Your task to perform on an android device: clear all cookies in the chrome app Image 0: 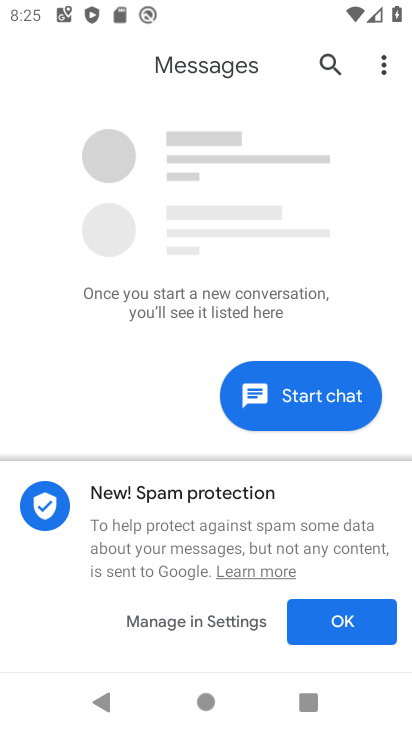
Step 0: click (346, 626)
Your task to perform on an android device: clear all cookies in the chrome app Image 1: 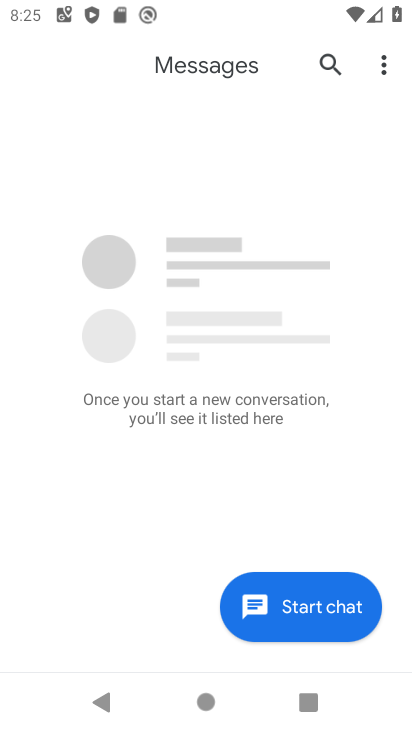
Step 1: click (343, 620)
Your task to perform on an android device: clear all cookies in the chrome app Image 2: 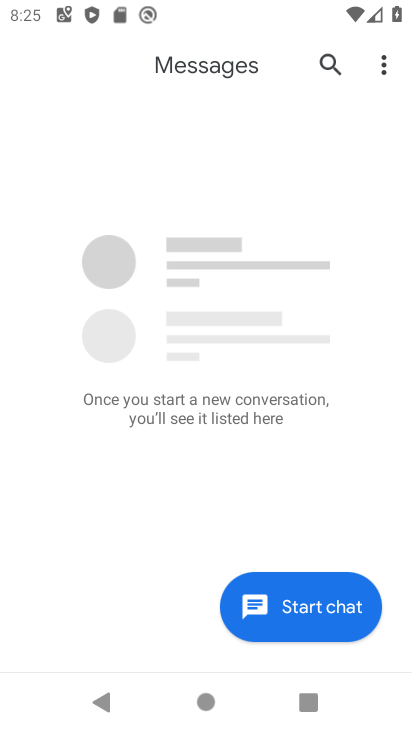
Step 2: click (345, 619)
Your task to perform on an android device: clear all cookies in the chrome app Image 3: 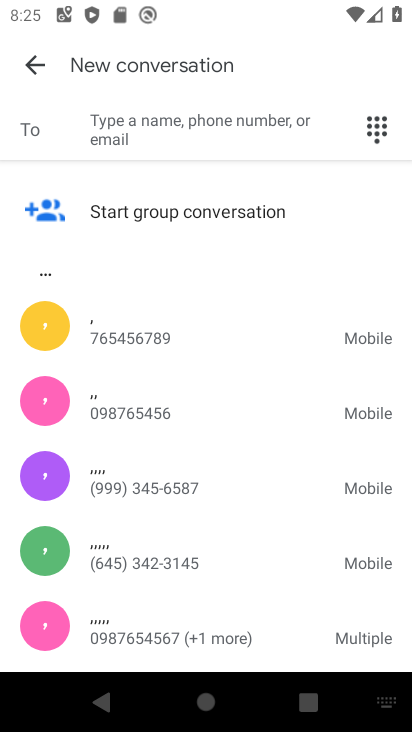
Step 3: click (354, 625)
Your task to perform on an android device: clear all cookies in the chrome app Image 4: 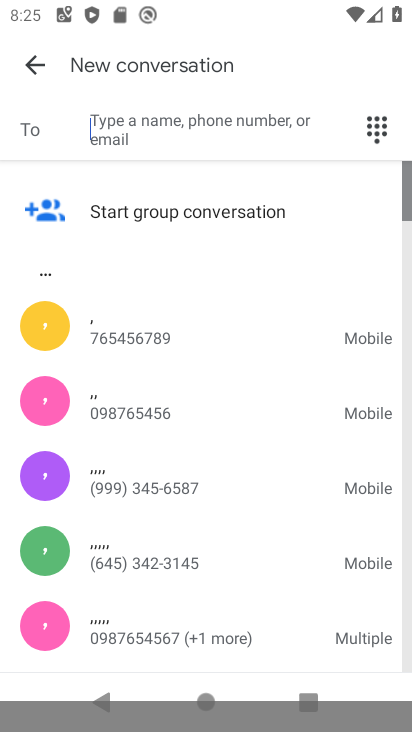
Step 4: press back button
Your task to perform on an android device: clear all cookies in the chrome app Image 5: 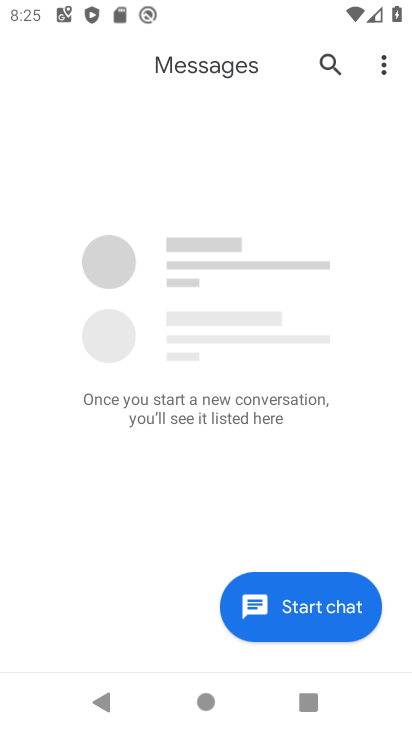
Step 5: press home button
Your task to perform on an android device: clear all cookies in the chrome app Image 6: 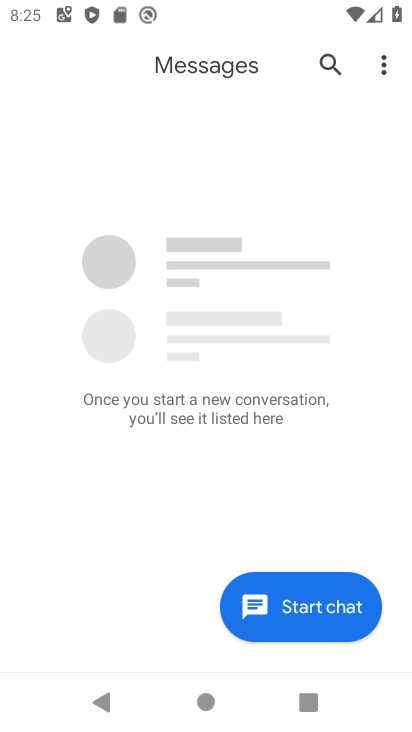
Step 6: press home button
Your task to perform on an android device: clear all cookies in the chrome app Image 7: 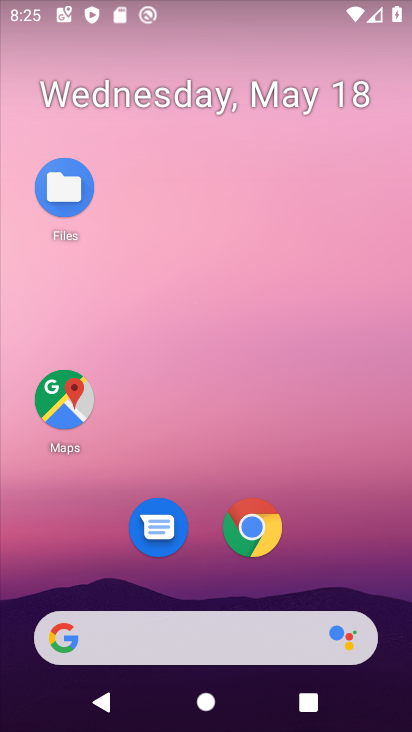
Step 7: press home button
Your task to perform on an android device: clear all cookies in the chrome app Image 8: 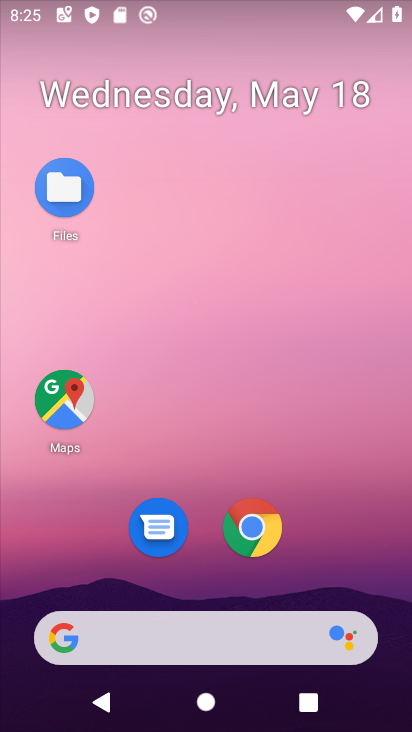
Step 8: drag from (269, 677) to (133, 137)
Your task to perform on an android device: clear all cookies in the chrome app Image 9: 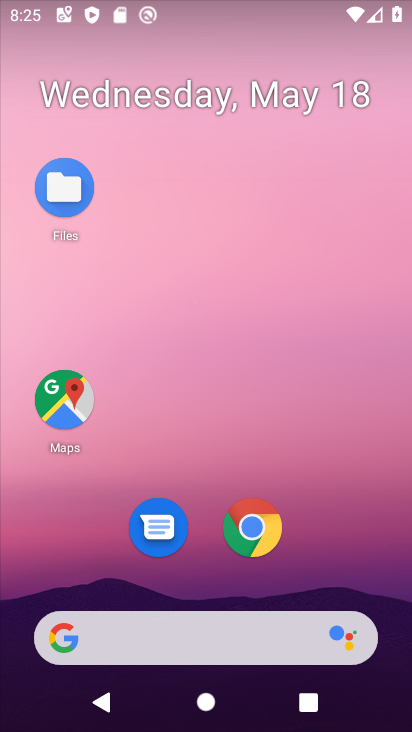
Step 9: drag from (374, 597) to (262, 6)
Your task to perform on an android device: clear all cookies in the chrome app Image 10: 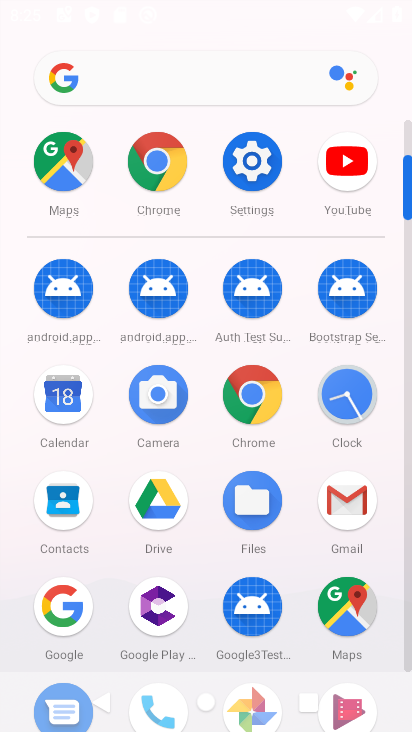
Step 10: drag from (285, 652) to (262, 7)
Your task to perform on an android device: clear all cookies in the chrome app Image 11: 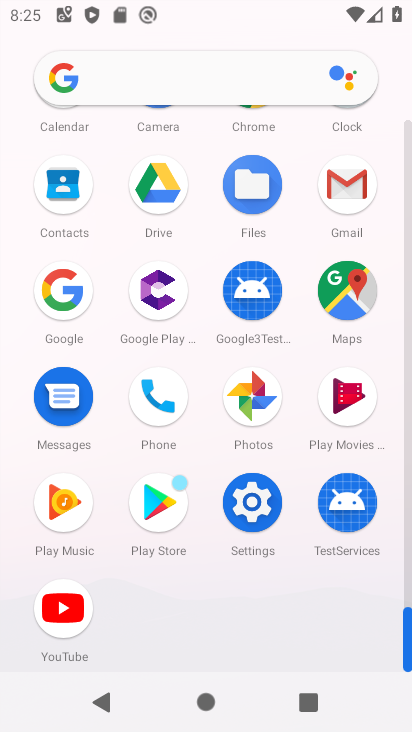
Step 11: drag from (252, 561) to (197, 4)
Your task to perform on an android device: clear all cookies in the chrome app Image 12: 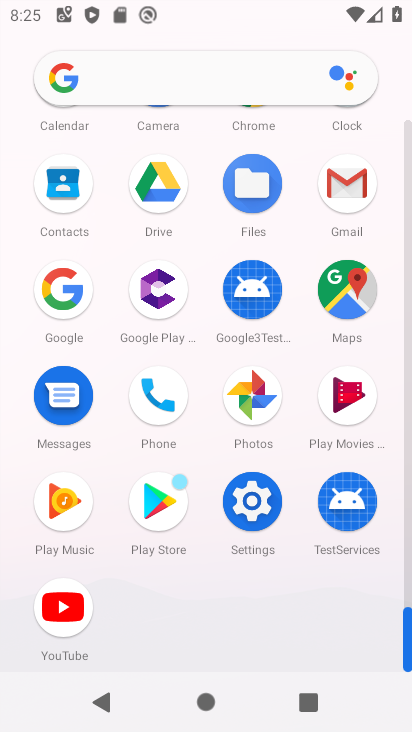
Step 12: drag from (238, 22) to (204, 193)
Your task to perform on an android device: clear all cookies in the chrome app Image 13: 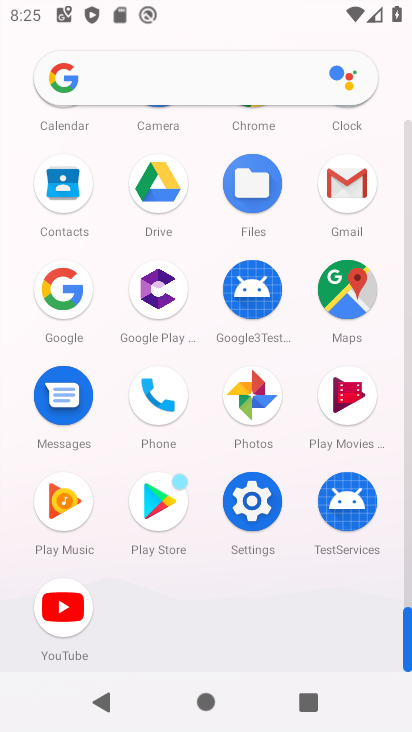
Step 13: click (253, 394)
Your task to perform on an android device: clear all cookies in the chrome app Image 14: 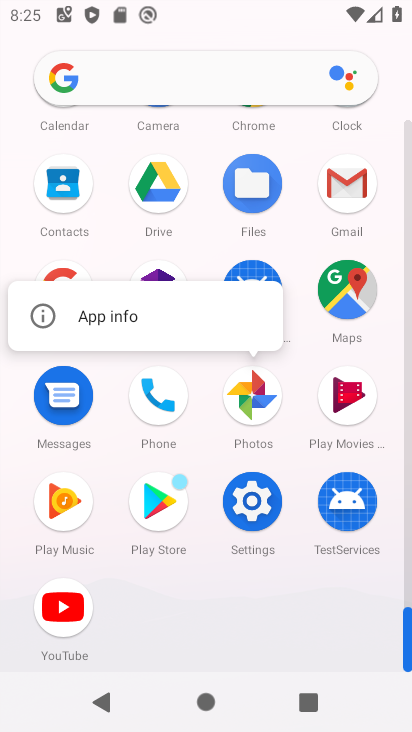
Step 14: click (161, 186)
Your task to perform on an android device: clear all cookies in the chrome app Image 15: 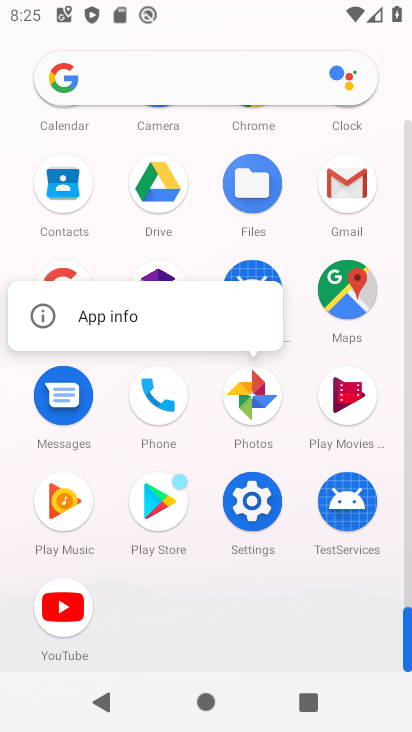
Step 15: click (254, 276)
Your task to perform on an android device: clear all cookies in the chrome app Image 16: 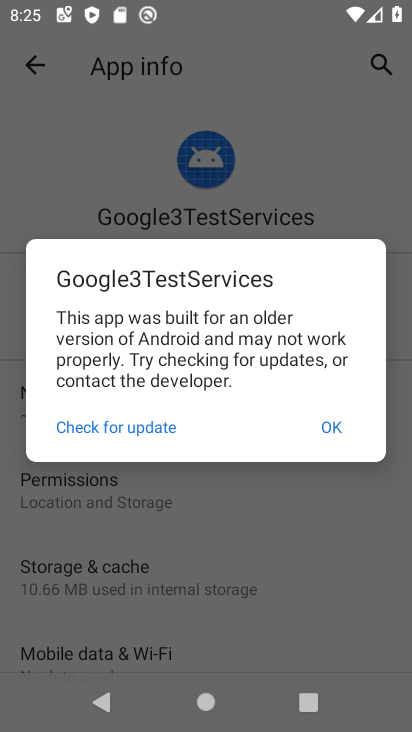
Step 16: click (331, 428)
Your task to perform on an android device: clear all cookies in the chrome app Image 17: 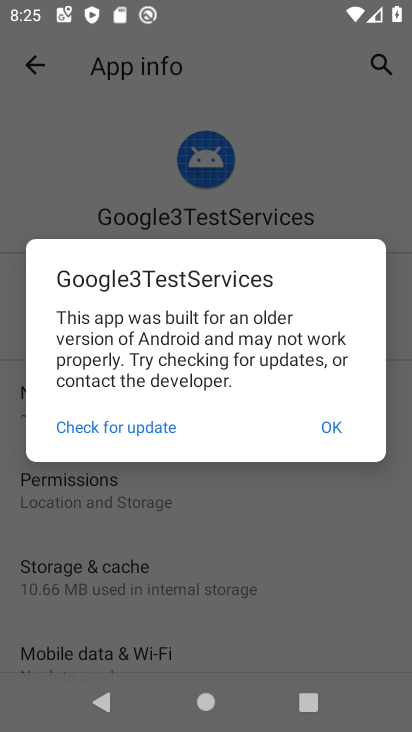
Step 17: click (331, 428)
Your task to perform on an android device: clear all cookies in the chrome app Image 18: 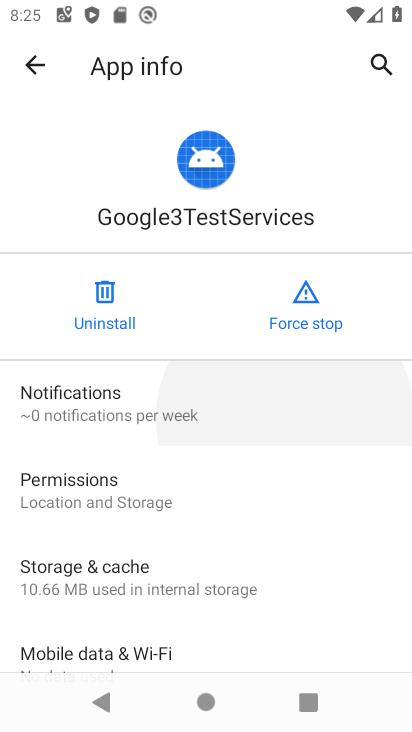
Step 18: click (331, 428)
Your task to perform on an android device: clear all cookies in the chrome app Image 19: 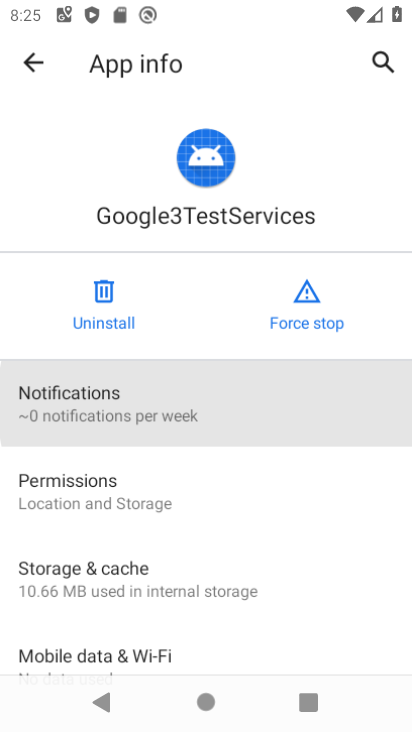
Step 19: click (331, 428)
Your task to perform on an android device: clear all cookies in the chrome app Image 20: 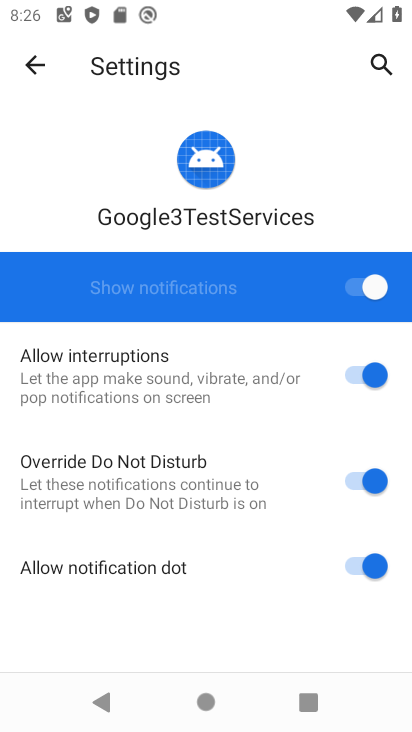
Step 20: click (27, 63)
Your task to perform on an android device: clear all cookies in the chrome app Image 21: 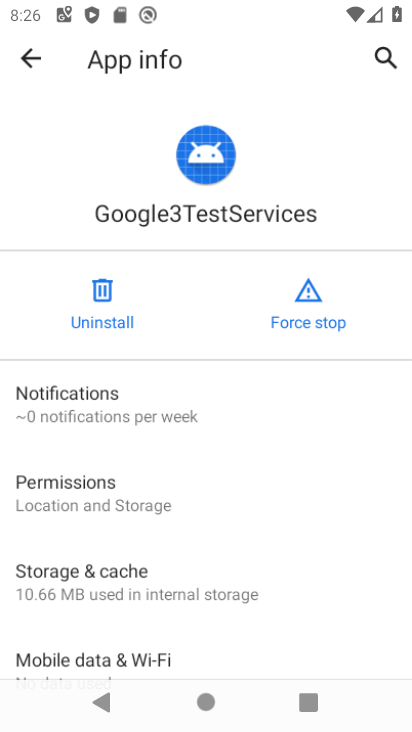
Step 21: click (27, 63)
Your task to perform on an android device: clear all cookies in the chrome app Image 22: 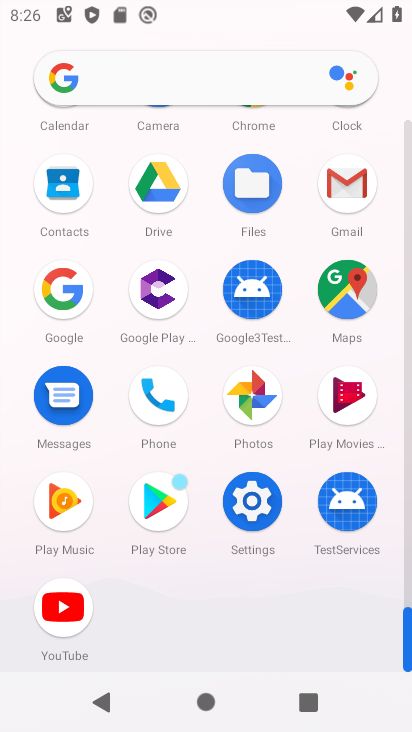
Step 22: drag from (204, 278) to (273, 655)
Your task to perform on an android device: clear all cookies in the chrome app Image 23: 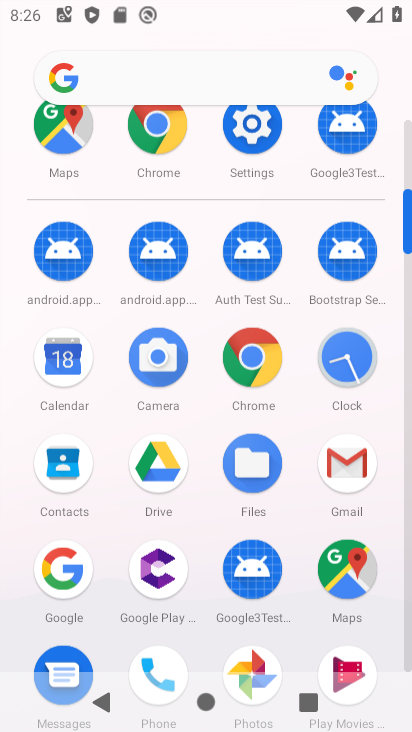
Step 23: drag from (257, 244) to (316, 556)
Your task to perform on an android device: clear all cookies in the chrome app Image 24: 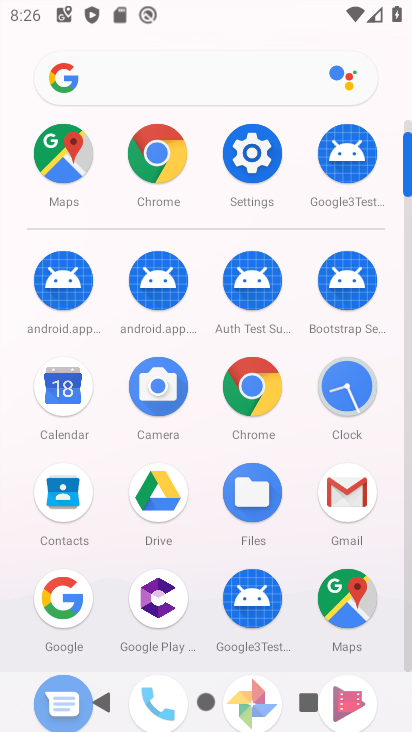
Step 24: click (242, 348)
Your task to perform on an android device: clear all cookies in the chrome app Image 25: 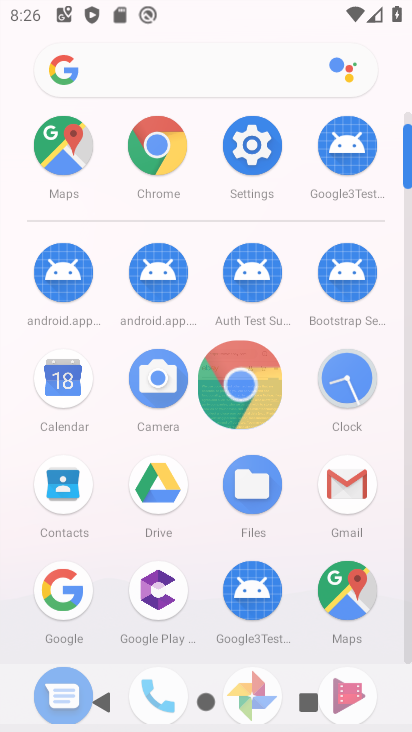
Step 25: click (253, 377)
Your task to perform on an android device: clear all cookies in the chrome app Image 26: 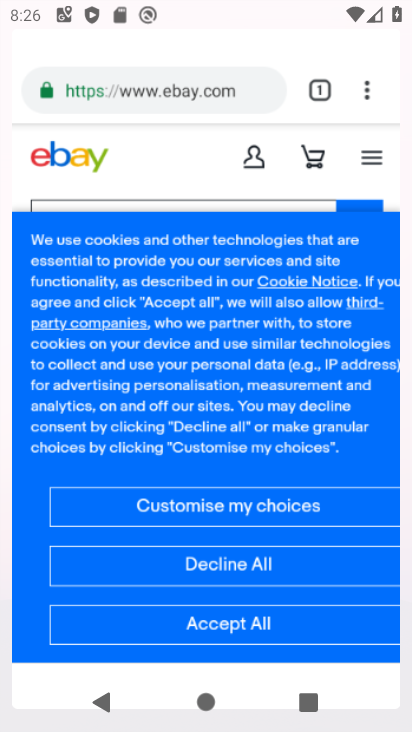
Step 26: click (253, 377)
Your task to perform on an android device: clear all cookies in the chrome app Image 27: 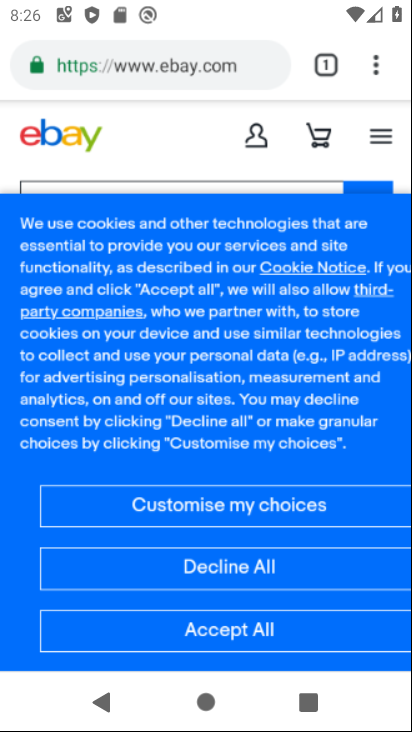
Step 27: click (253, 377)
Your task to perform on an android device: clear all cookies in the chrome app Image 28: 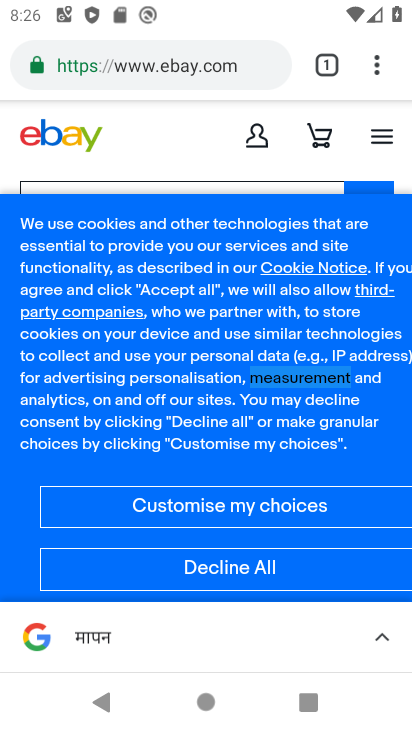
Step 28: click (369, 66)
Your task to perform on an android device: clear all cookies in the chrome app Image 29: 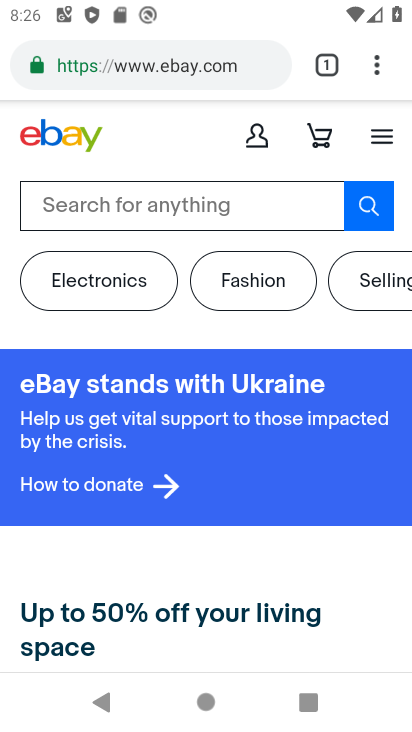
Step 29: click (375, 61)
Your task to perform on an android device: clear all cookies in the chrome app Image 30: 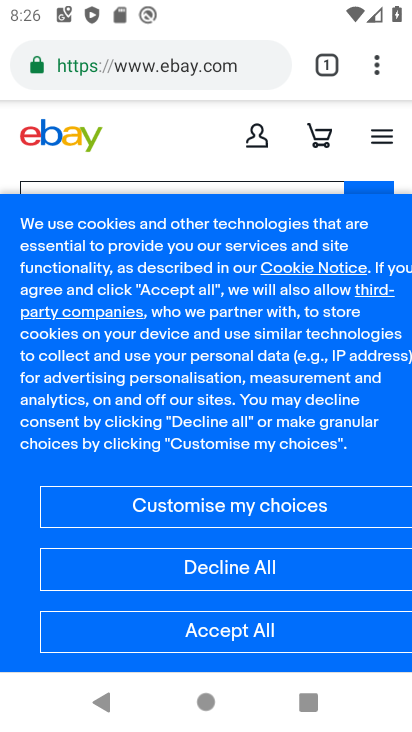
Step 30: click (371, 66)
Your task to perform on an android device: clear all cookies in the chrome app Image 31: 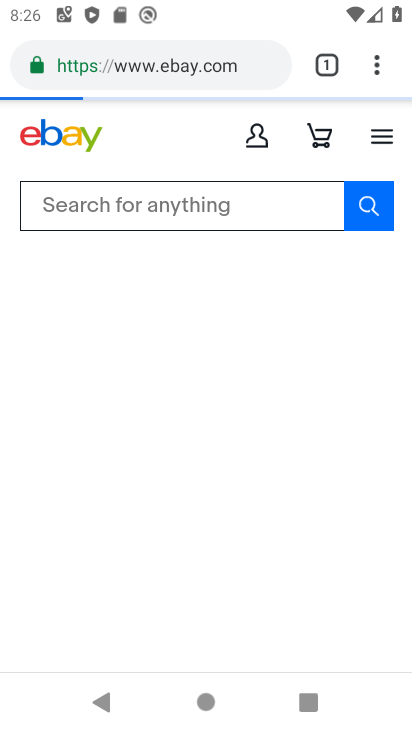
Step 31: drag from (371, 66) to (134, 596)
Your task to perform on an android device: clear all cookies in the chrome app Image 32: 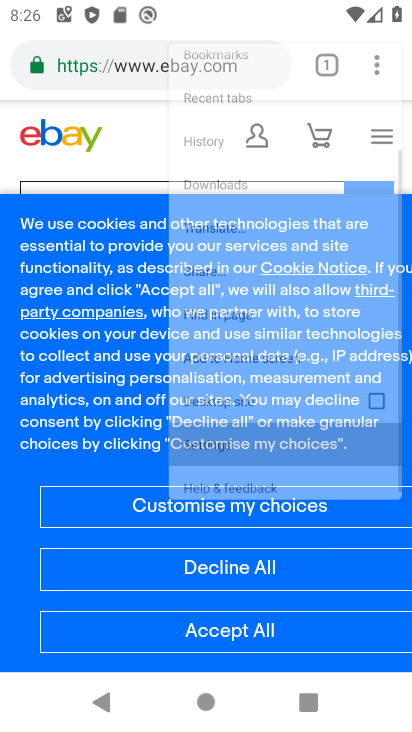
Step 32: click (134, 595)
Your task to perform on an android device: clear all cookies in the chrome app Image 33: 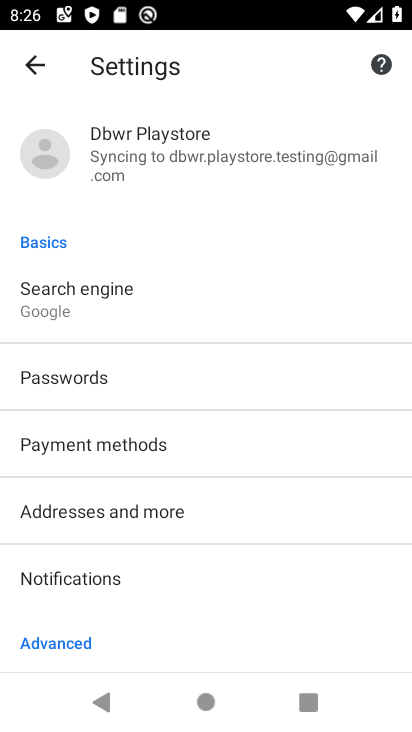
Step 33: drag from (109, 450) to (108, 220)
Your task to perform on an android device: clear all cookies in the chrome app Image 34: 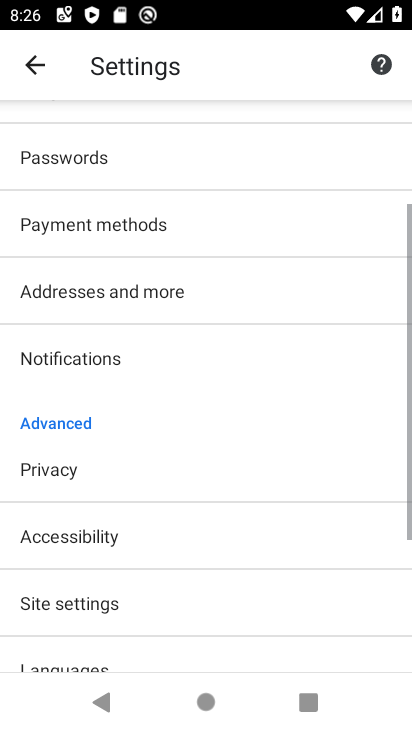
Step 34: drag from (105, 379) to (140, 89)
Your task to perform on an android device: clear all cookies in the chrome app Image 35: 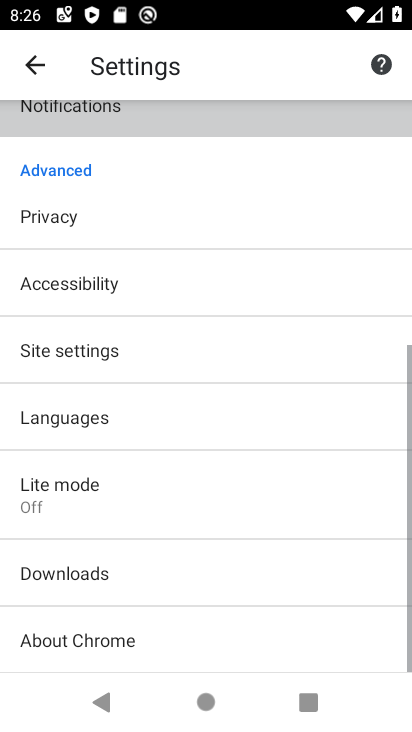
Step 35: drag from (140, 482) to (140, 59)
Your task to perform on an android device: clear all cookies in the chrome app Image 36: 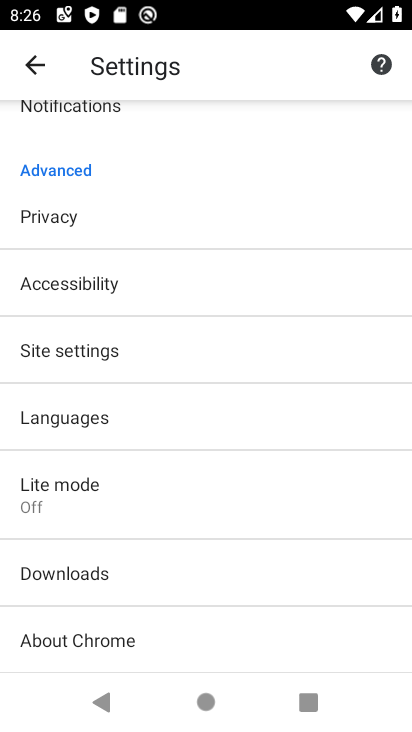
Step 36: click (47, 343)
Your task to perform on an android device: clear all cookies in the chrome app Image 37: 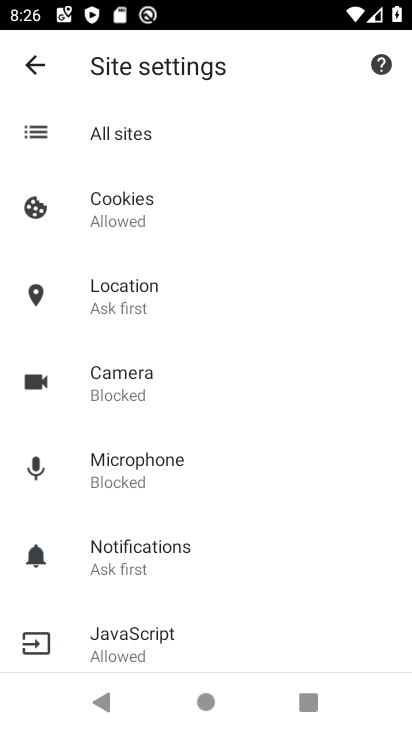
Step 37: click (111, 208)
Your task to perform on an android device: clear all cookies in the chrome app Image 38: 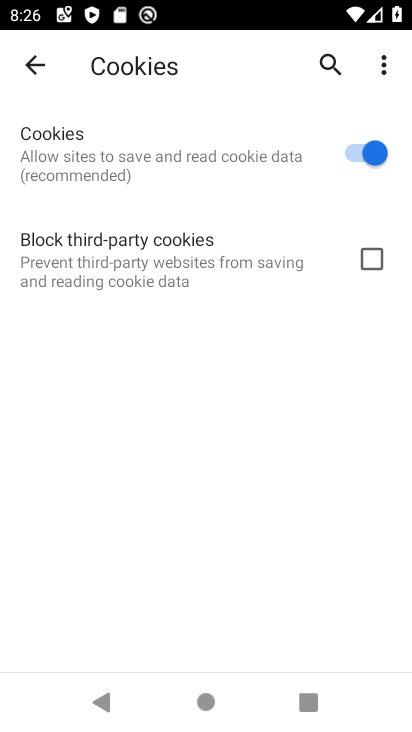
Step 38: click (371, 151)
Your task to perform on an android device: clear all cookies in the chrome app Image 39: 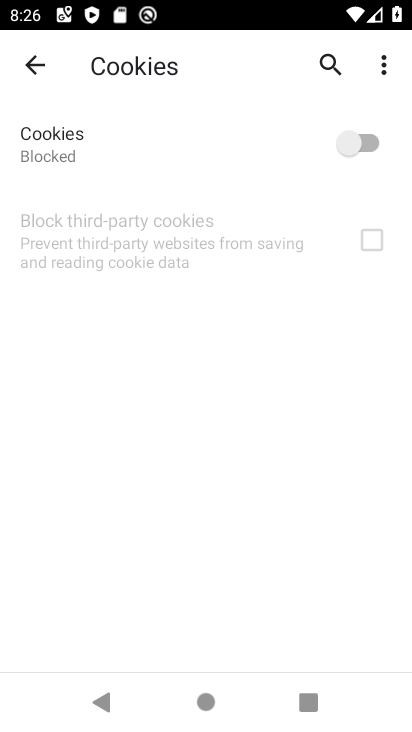
Step 39: task complete